Your task to perform on an android device: Go to Wikipedia Image 0: 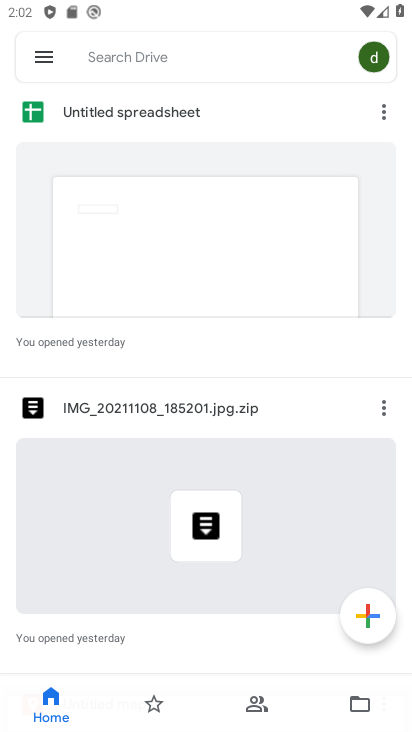
Step 0: press home button
Your task to perform on an android device: Go to Wikipedia Image 1: 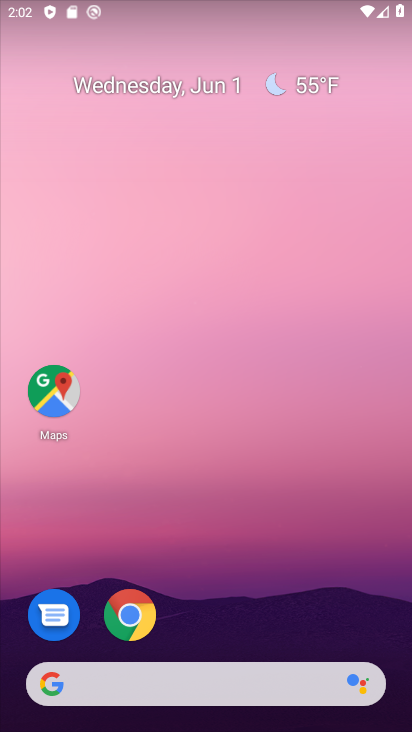
Step 1: drag from (149, 662) to (257, 116)
Your task to perform on an android device: Go to Wikipedia Image 2: 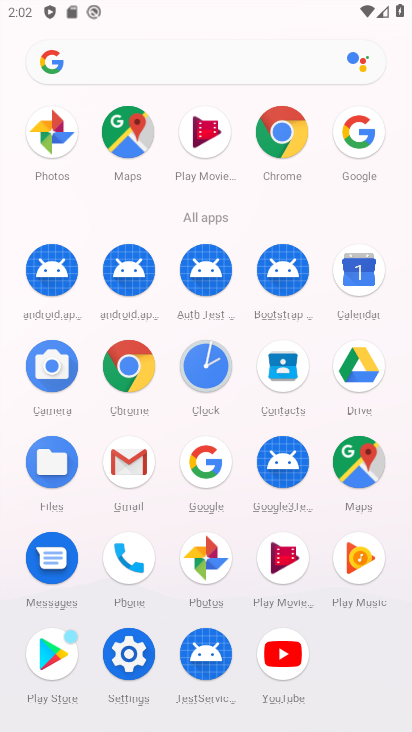
Step 2: drag from (167, 619) to (197, 438)
Your task to perform on an android device: Go to Wikipedia Image 3: 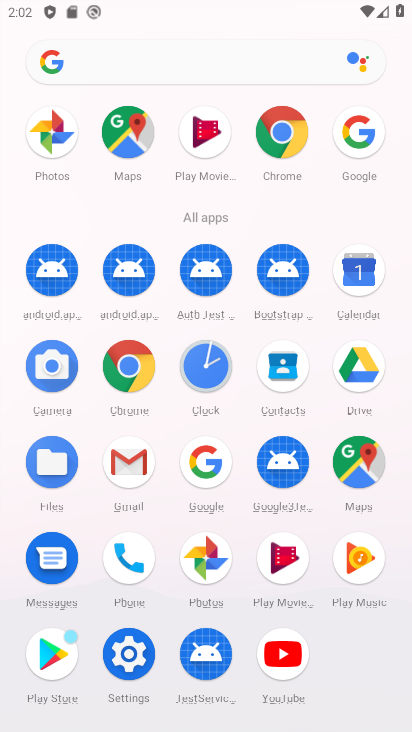
Step 3: click (125, 368)
Your task to perform on an android device: Go to Wikipedia Image 4: 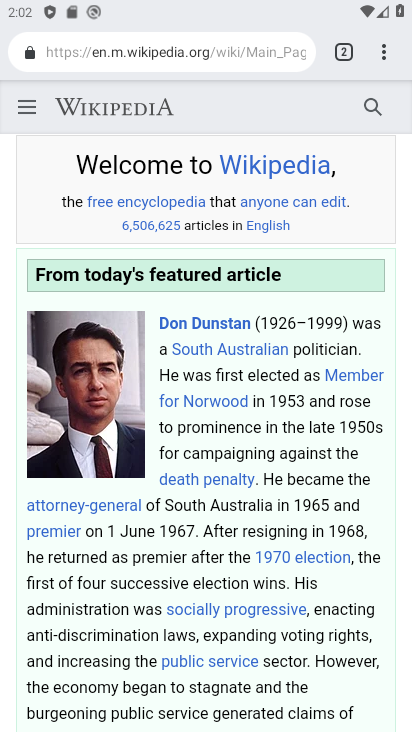
Step 4: task complete